Your task to perform on an android device: Open the web browser Image 0: 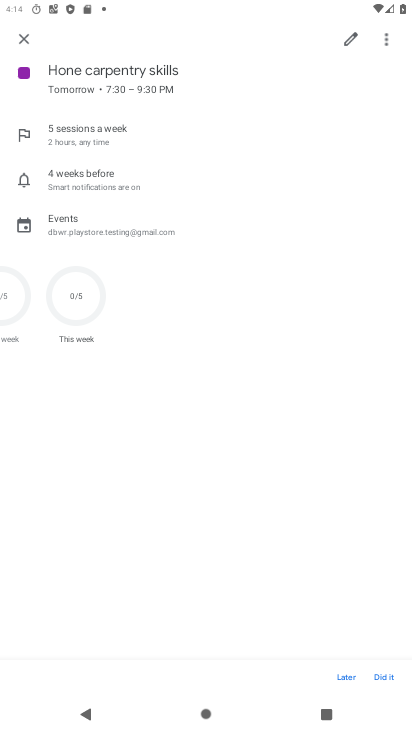
Step 0: press home button
Your task to perform on an android device: Open the web browser Image 1: 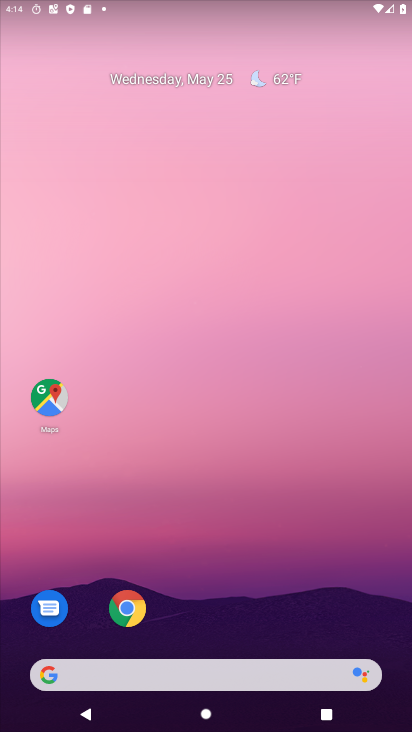
Step 1: click (129, 605)
Your task to perform on an android device: Open the web browser Image 2: 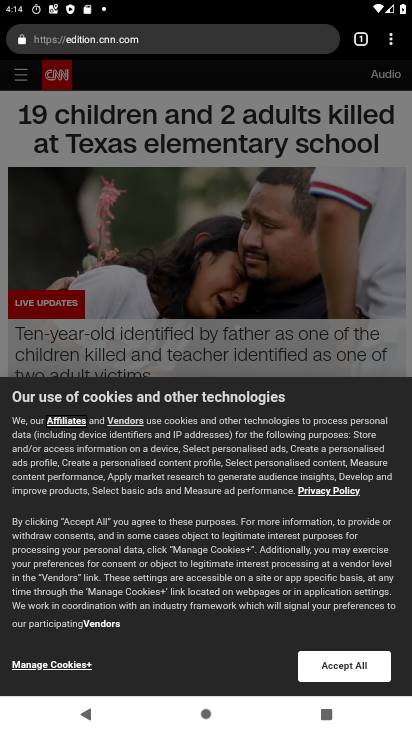
Step 2: task complete